Your task to perform on an android device: allow cookies in the chrome app Image 0: 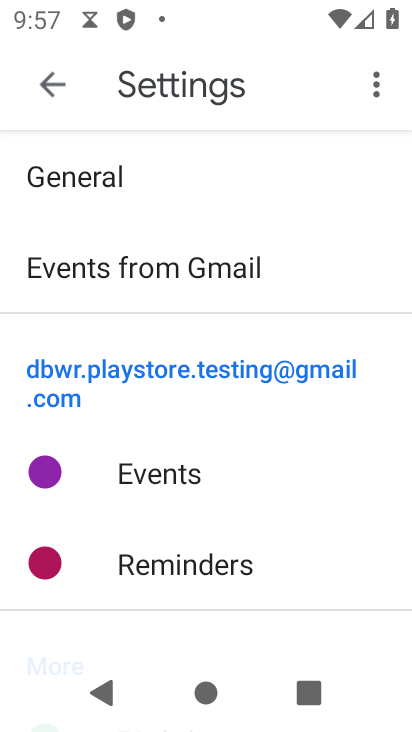
Step 0: press home button
Your task to perform on an android device: allow cookies in the chrome app Image 1: 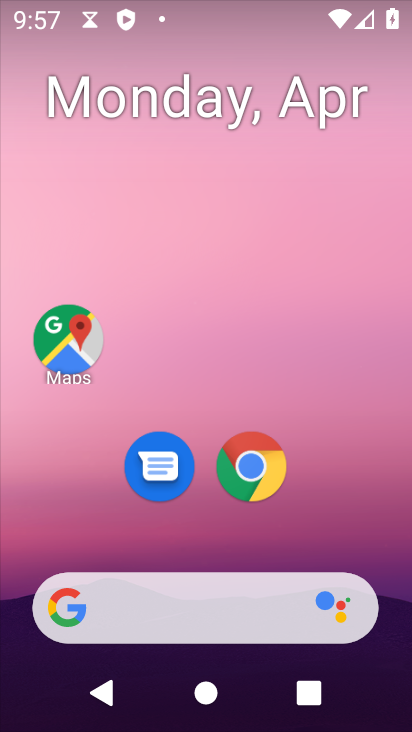
Step 1: click (252, 460)
Your task to perform on an android device: allow cookies in the chrome app Image 2: 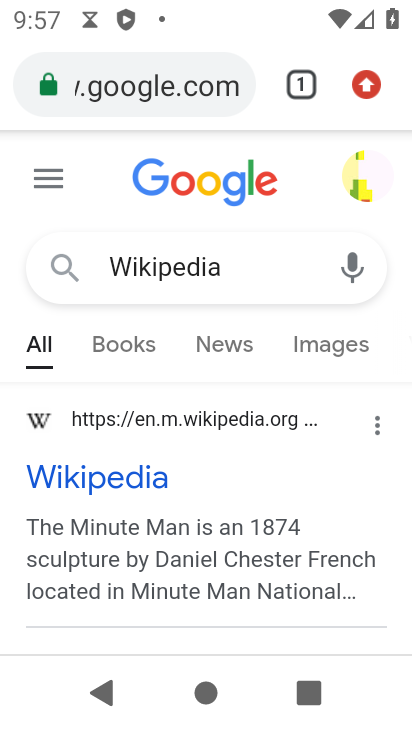
Step 2: click (364, 90)
Your task to perform on an android device: allow cookies in the chrome app Image 3: 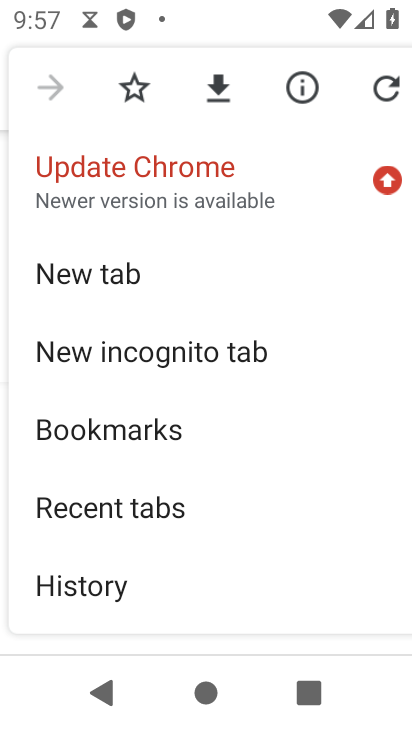
Step 3: drag from (118, 578) to (172, 418)
Your task to perform on an android device: allow cookies in the chrome app Image 4: 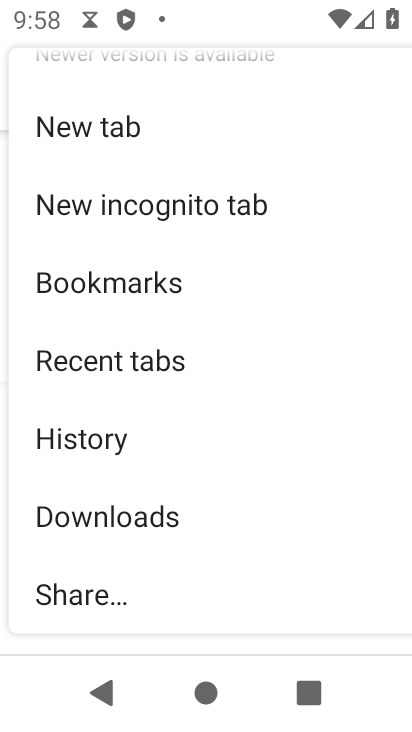
Step 4: drag from (155, 575) to (197, 461)
Your task to perform on an android device: allow cookies in the chrome app Image 5: 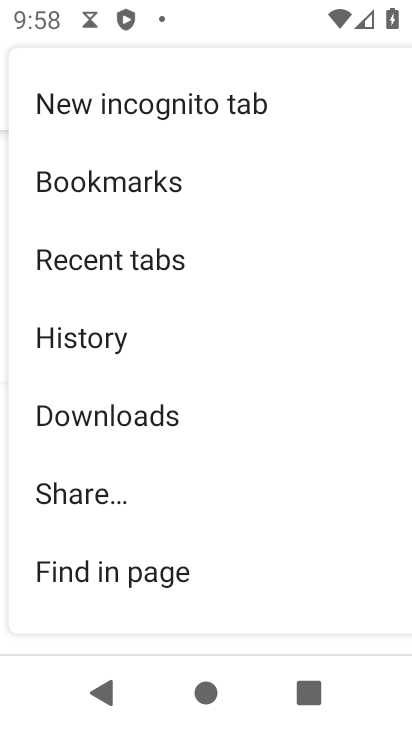
Step 5: drag from (181, 568) to (215, 464)
Your task to perform on an android device: allow cookies in the chrome app Image 6: 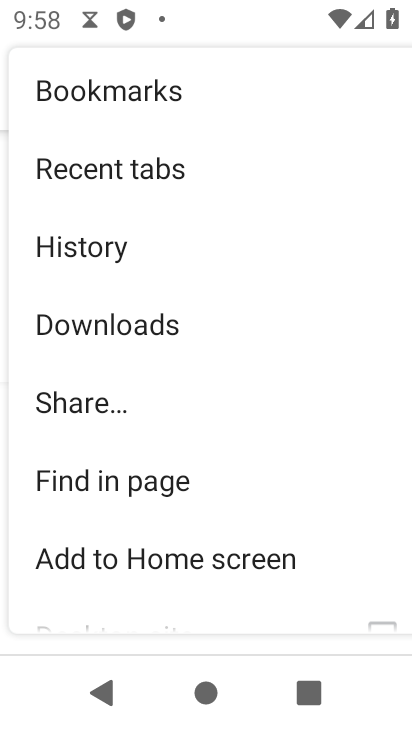
Step 6: drag from (191, 576) to (226, 466)
Your task to perform on an android device: allow cookies in the chrome app Image 7: 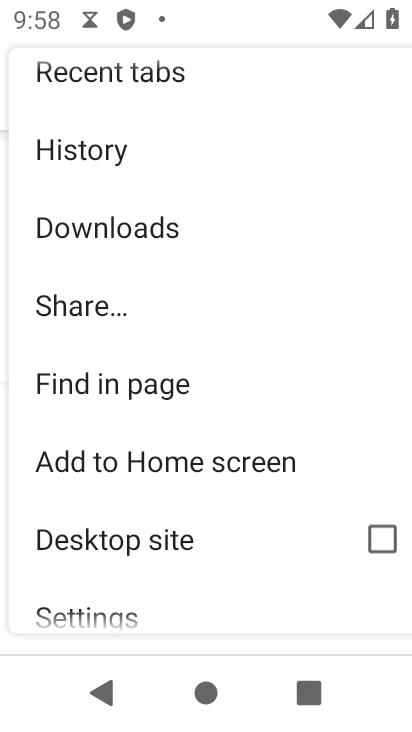
Step 7: drag from (199, 557) to (259, 442)
Your task to perform on an android device: allow cookies in the chrome app Image 8: 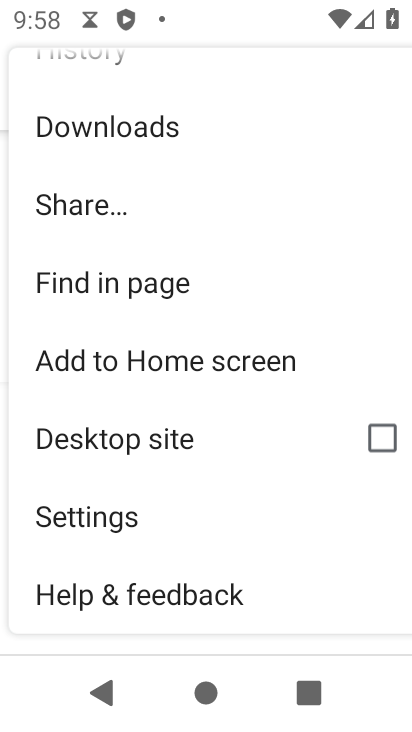
Step 8: click (95, 520)
Your task to perform on an android device: allow cookies in the chrome app Image 9: 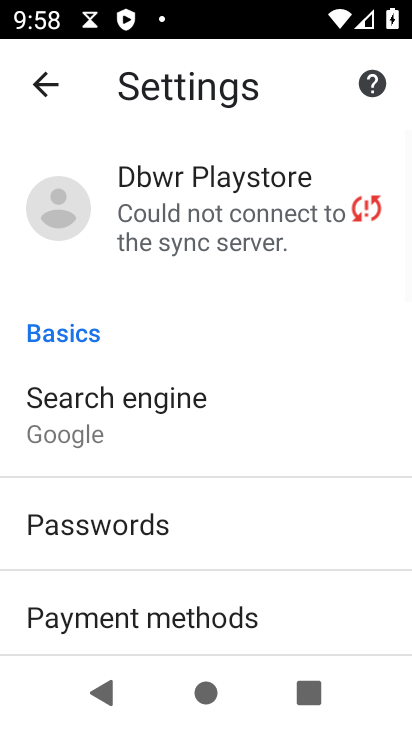
Step 9: drag from (253, 559) to (300, 447)
Your task to perform on an android device: allow cookies in the chrome app Image 10: 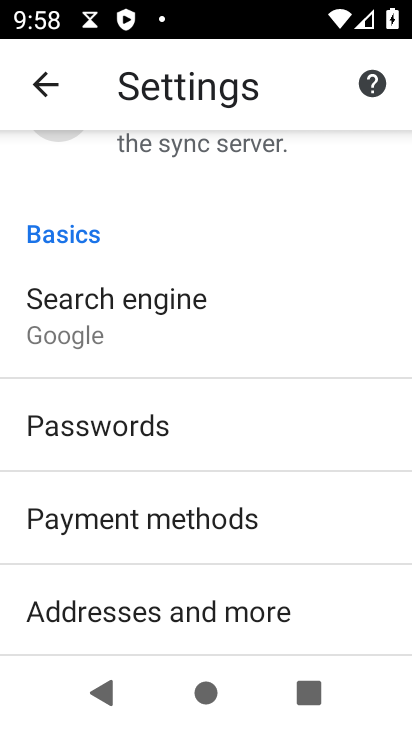
Step 10: drag from (221, 562) to (274, 431)
Your task to perform on an android device: allow cookies in the chrome app Image 11: 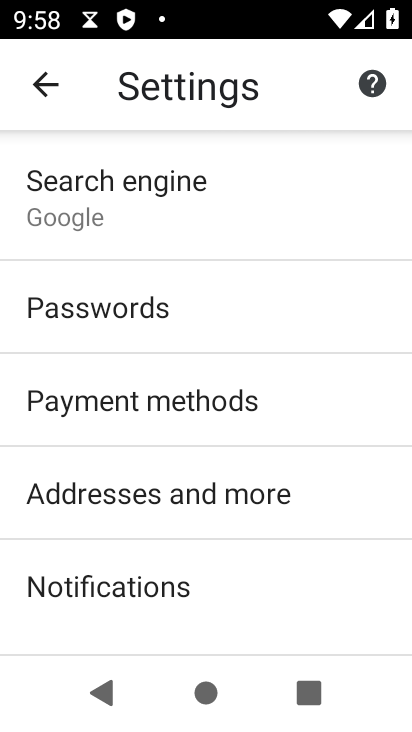
Step 11: drag from (211, 552) to (260, 409)
Your task to perform on an android device: allow cookies in the chrome app Image 12: 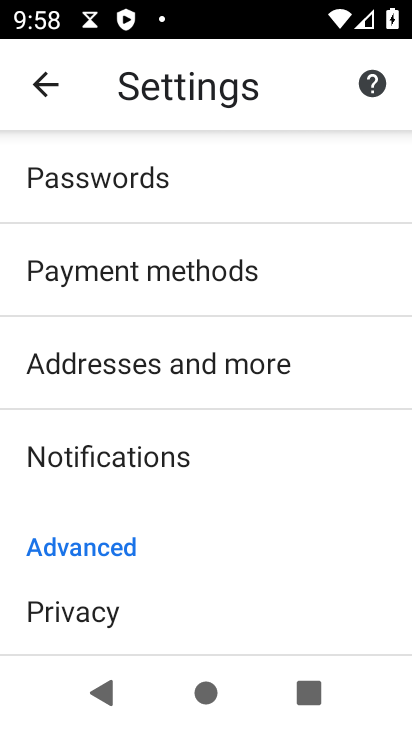
Step 12: drag from (170, 566) to (208, 481)
Your task to perform on an android device: allow cookies in the chrome app Image 13: 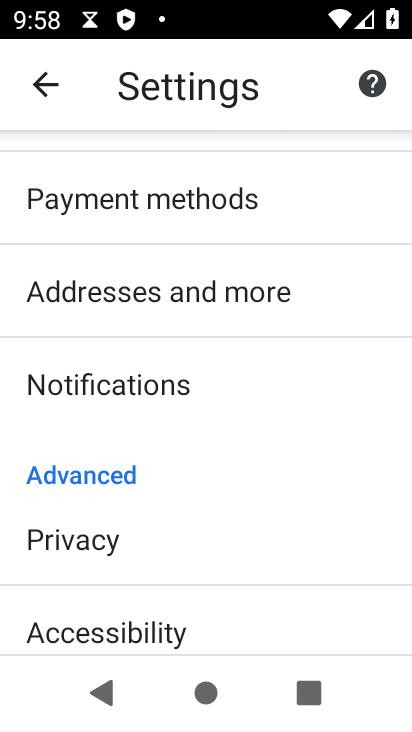
Step 13: drag from (188, 580) to (243, 458)
Your task to perform on an android device: allow cookies in the chrome app Image 14: 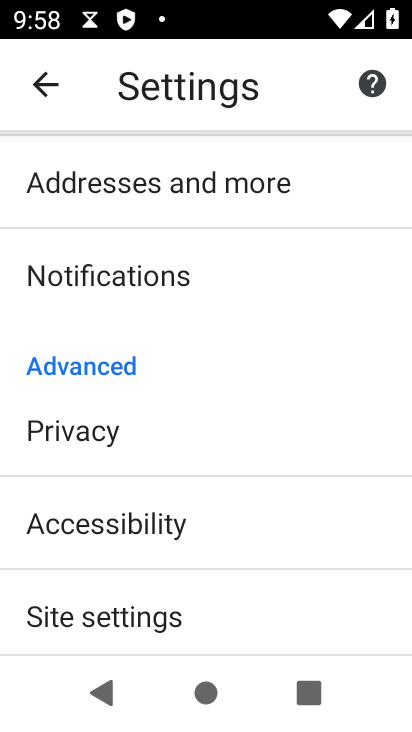
Step 14: drag from (212, 603) to (261, 459)
Your task to perform on an android device: allow cookies in the chrome app Image 15: 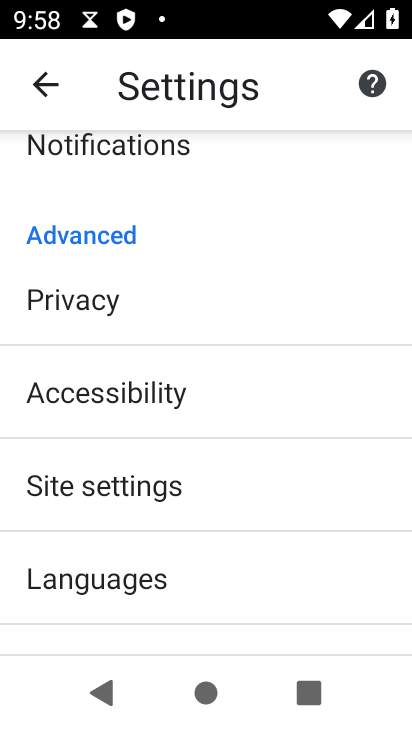
Step 15: click (140, 496)
Your task to perform on an android device: allow cookies in the chrome app Image 16: 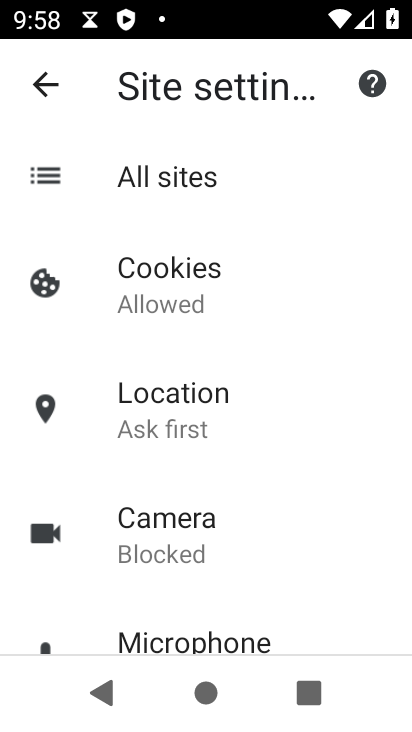
Step 16: click (193, 298)
Your task to perform on an android device: allow cookies in the chrome app Image 17: 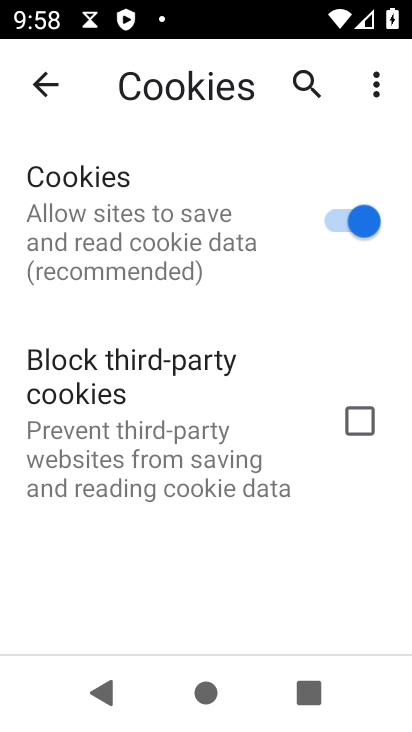
Step 17: task complete